Your task to perform on an android device: find which apps use the phone's location Image 0: 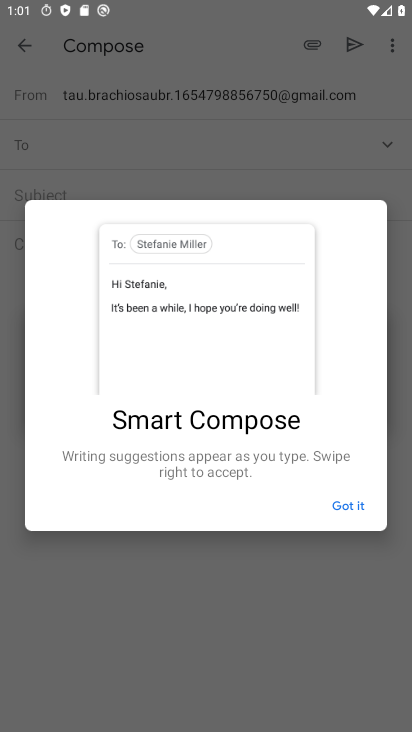
Step 0: press home button
Your task to perform on an android device: find which apps use the phone's location Image 1: 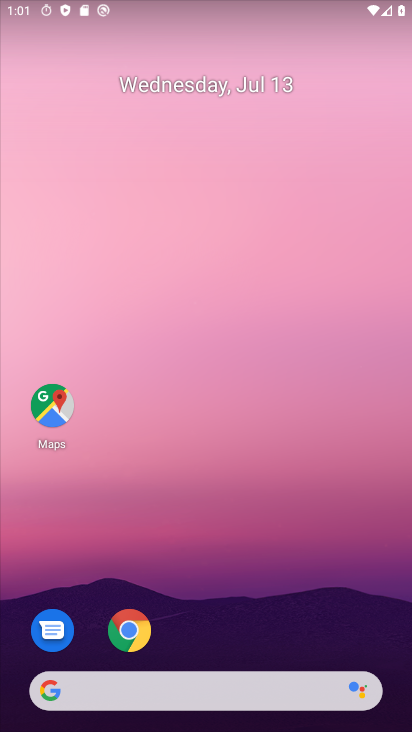
Step 1: drag from (280, 534) to (180, 1)
Your task to perform on an android device: find which apps use the phone's location Image 2: 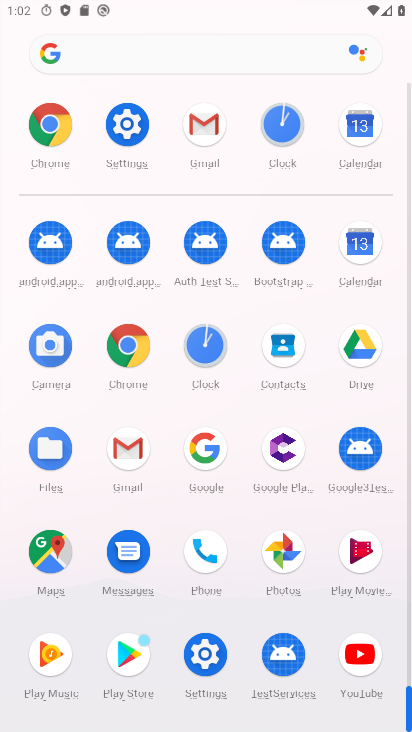
Step 2: click (130, 121)
Your task to perform on an android device: find which apps use the phone's location Image 3: 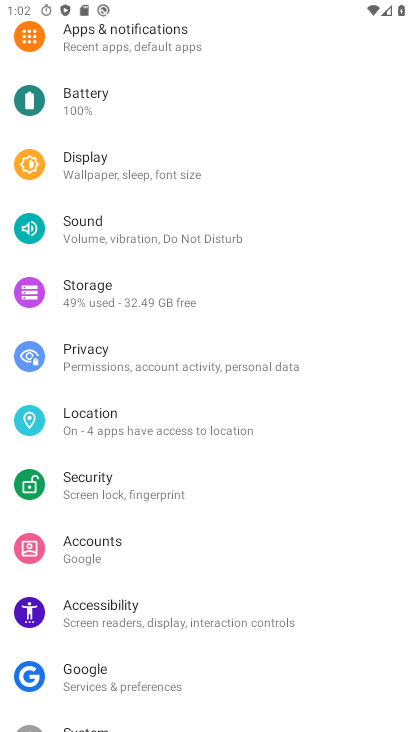
Step 3: click (112, 419)
Your task to perform on an android device: find which apps use the phone's location Image 4: 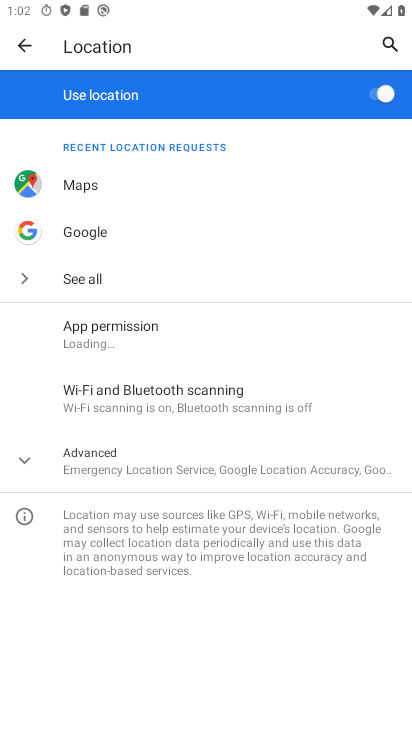
Step 4: click (122, 463)
Your task to perform on an android device: find which apps use the phone's location Image 5: 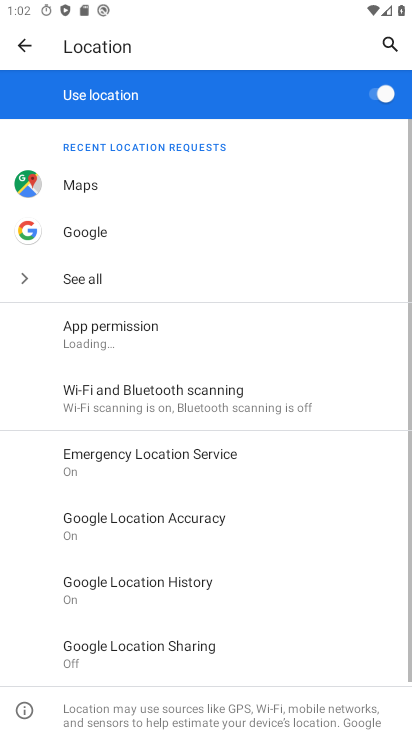
Step 5: drag from (122, 461) to (68, 205)
Your task to perform on an android device: find which apps use the phone's location Image 6: 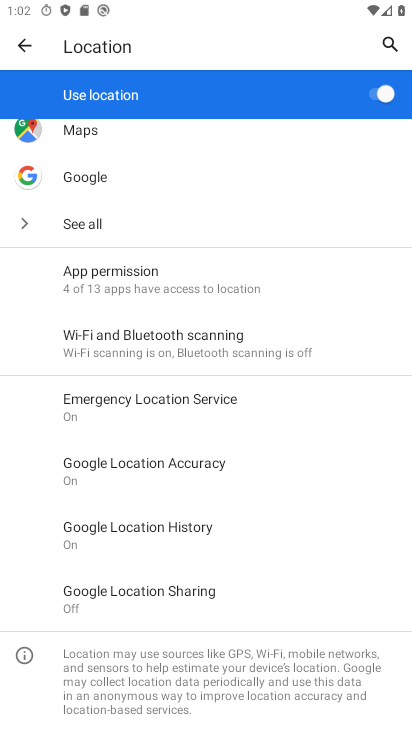
Step 6: drag from (68, 206) to (111, 376)
Your task to perform on an android device: find which apps use the phone's location Image 7: 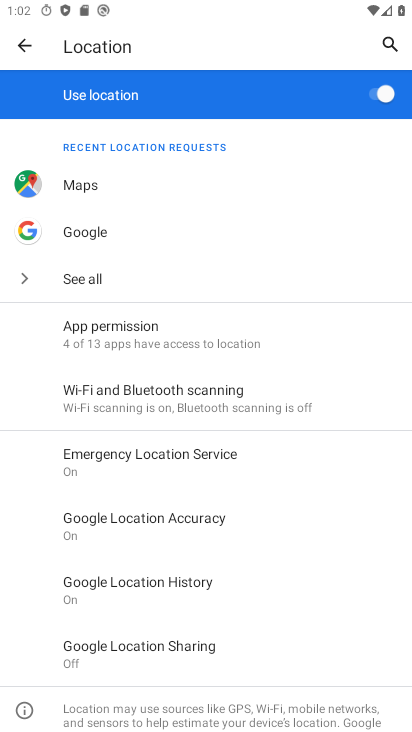
Step 7: click (85, 333)
Your task to perform on an android device: find which apps use the phone's location Image 8: 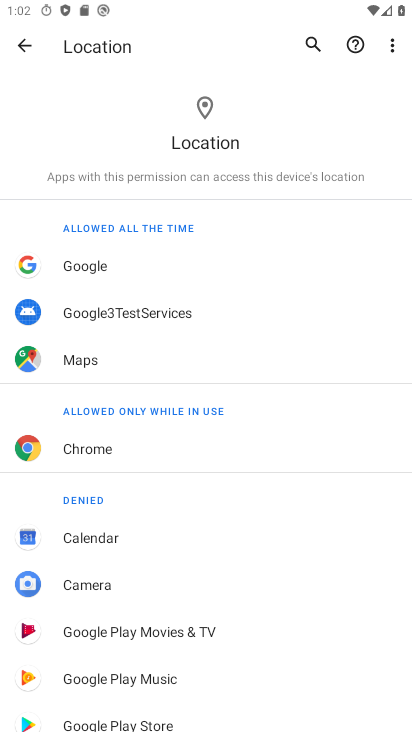
Step 8: task complete